Your task to perform on an android device: allow notifications from all sites in the chrome app Image 0: 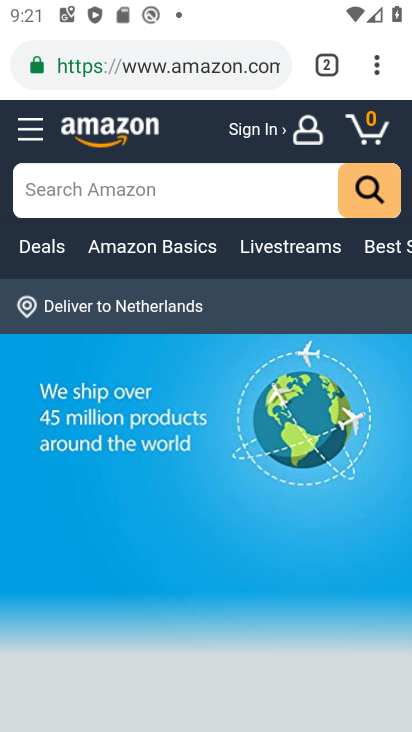
Step 0: press home button
Your task to perform on an android device: allow notifications from all sites in the chrome app Image 1: 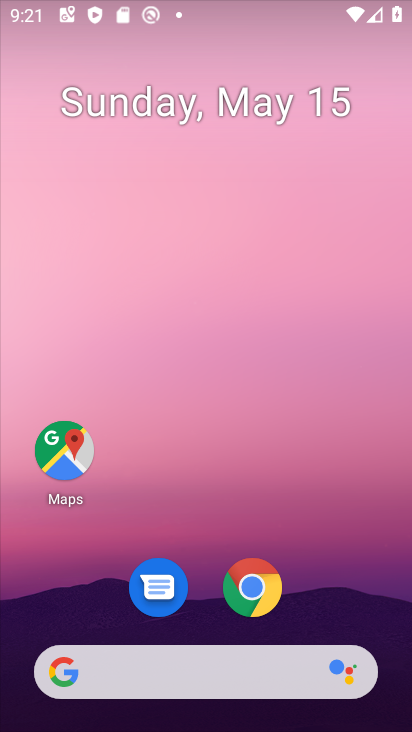
Step 1: drag from (372, 613) to (299, 76)
Your task to perform on an android device: allow notifications from all sites in the chrome app Image 2: 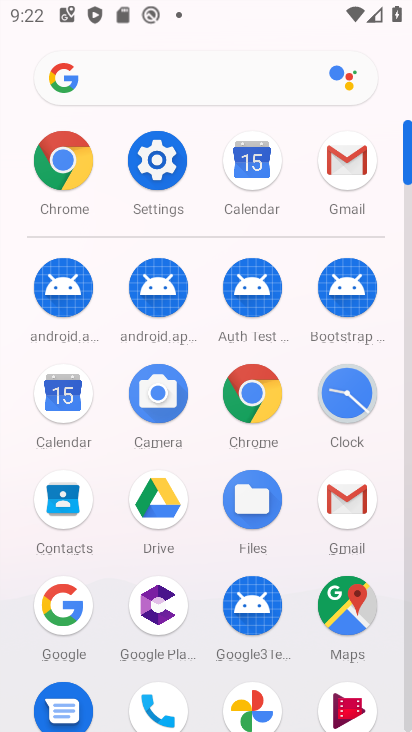
Step 2: click (66, 171)
Your task to perform on an android device: allow notifications from all sites in the chrome app Image 3: 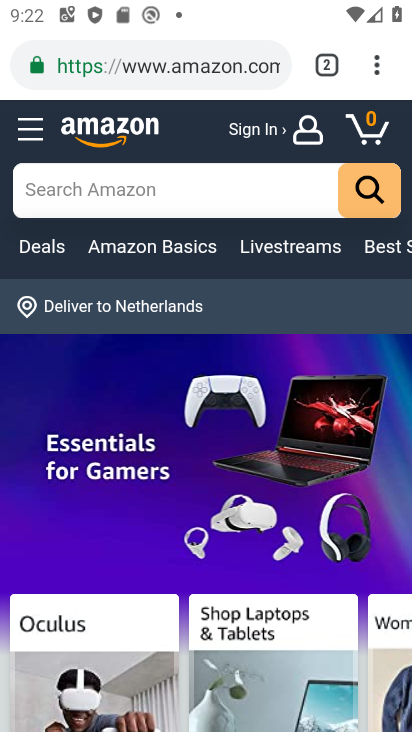
Step 3: press back button
Your task to perform on an android device: allow notifications from all sites in the chrome app Image 4: 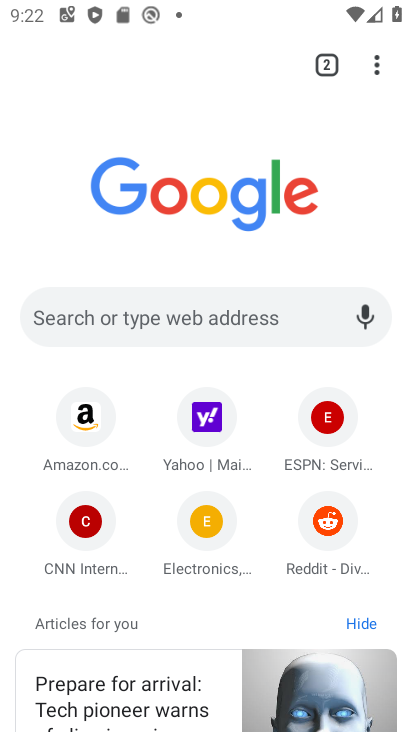
Step 4: click (377, 65)
Your task to perform on an android device: allow notifications from all sites in the chrome app Image 5: 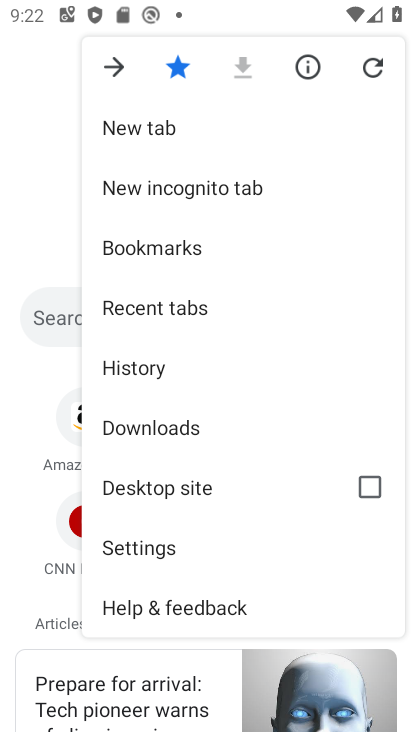
Step 5: click (229, 548)
Your task to perform on an android device: allow notifications from all sites in the chrome app Image 6: 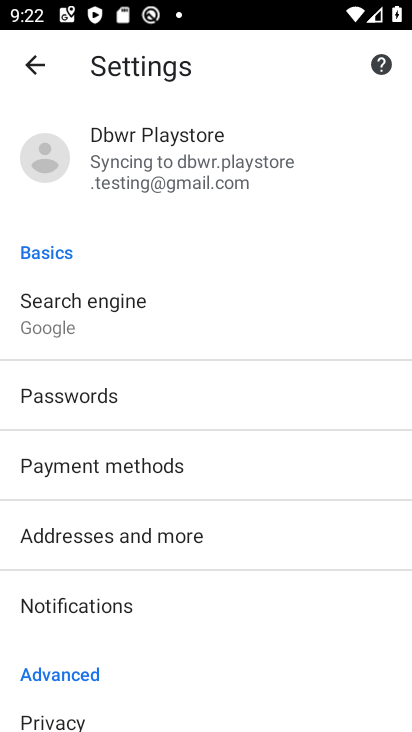
Step 6: click (100, 609)
Your task to perform on an android device: allow notifications from all sites in the chrome app Image 7: 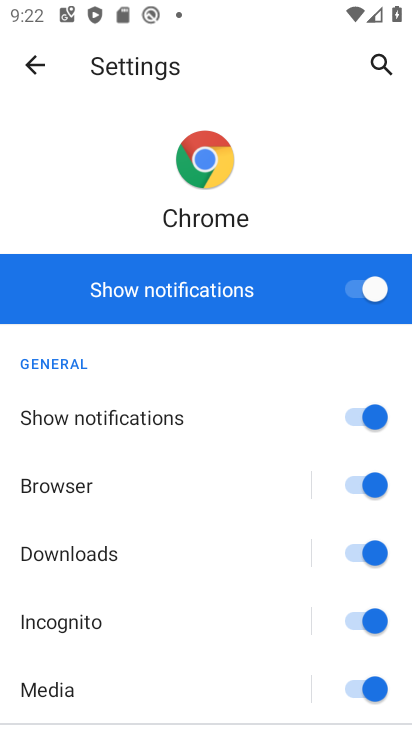
Step 7: task complete